Your task to perform on an android device: change alarm snooze length Image 0: 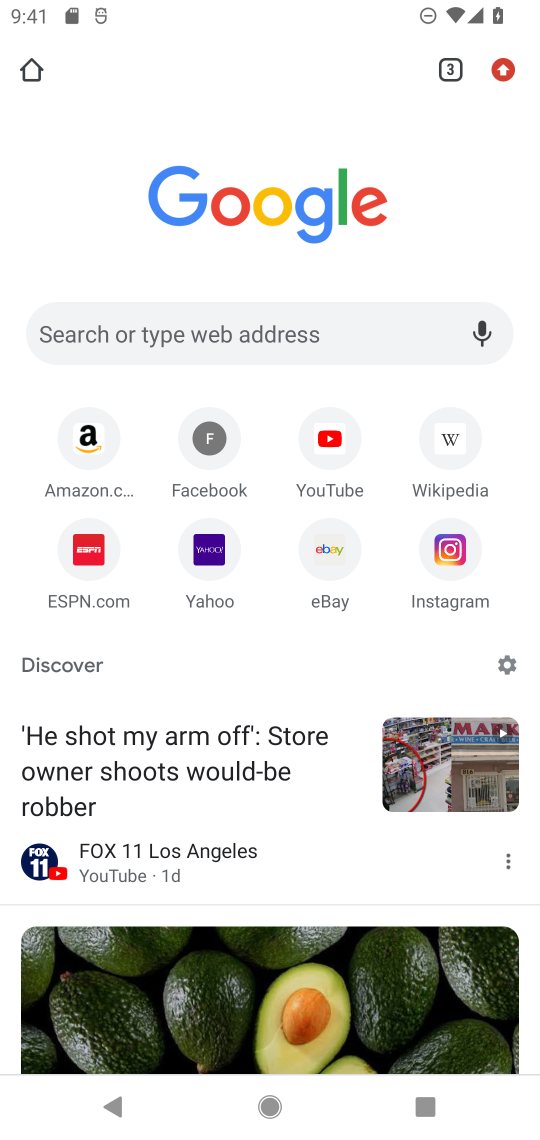
Step 0: press home button
Your task to perform on an android device: change alarm snooze length Image 1: 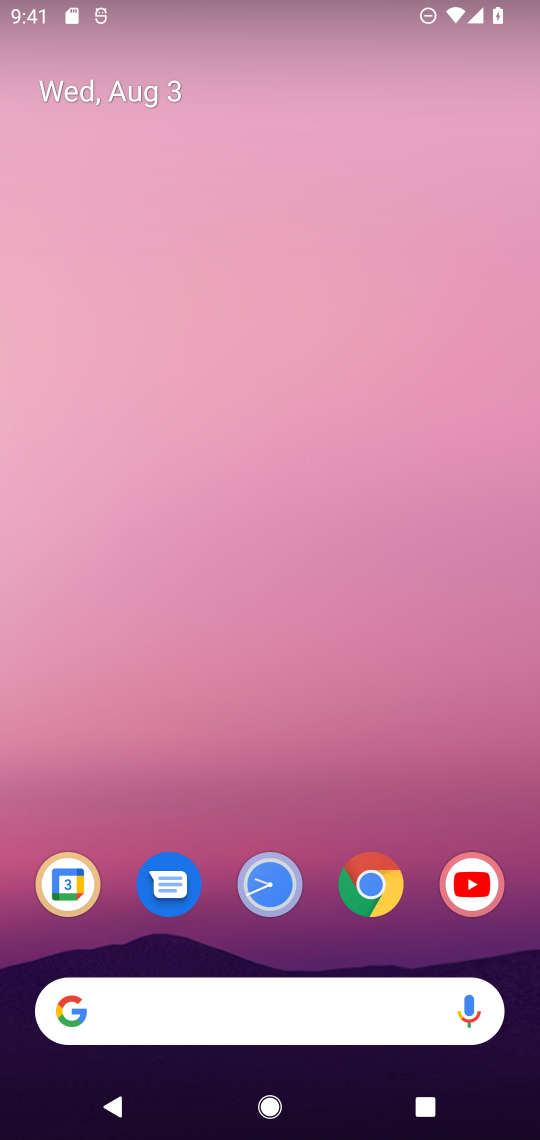
Step 1: click (258, 877)
Your task to perform on an android device: change alarm snooze length Image 2: 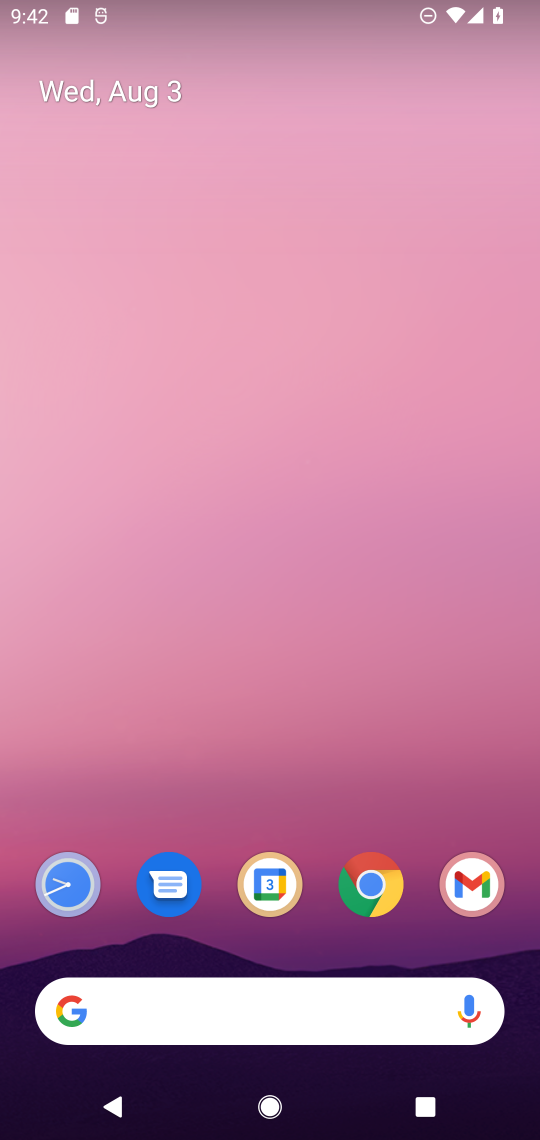
Step 2: click (68, 895)
Your task to perform on an android device: change alarm snooze length Image 3: 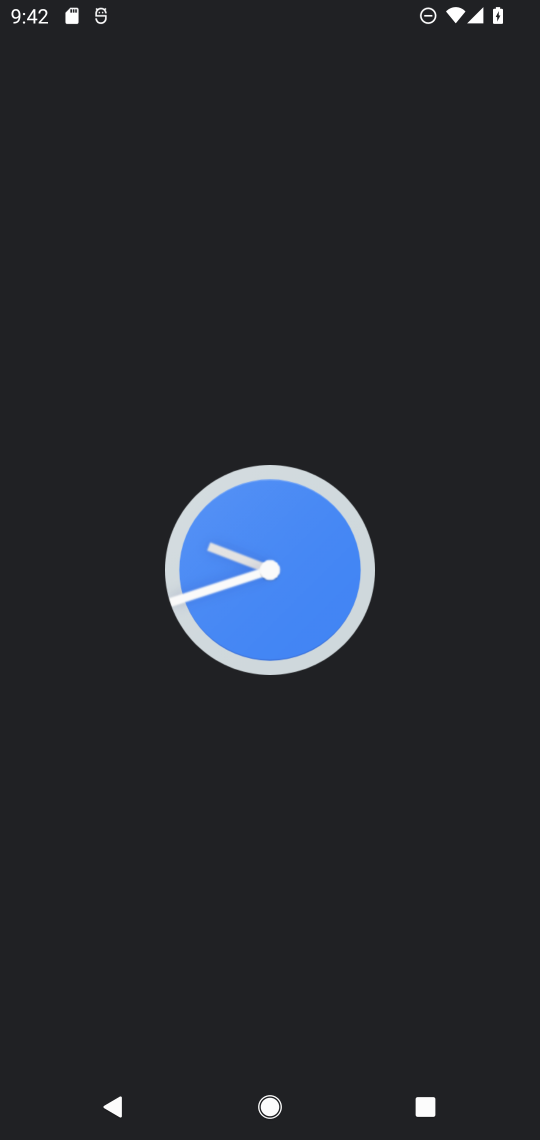
Step 3: click (53, 875)
Your task to perform on an android device: change alarm snooze length Image 4: 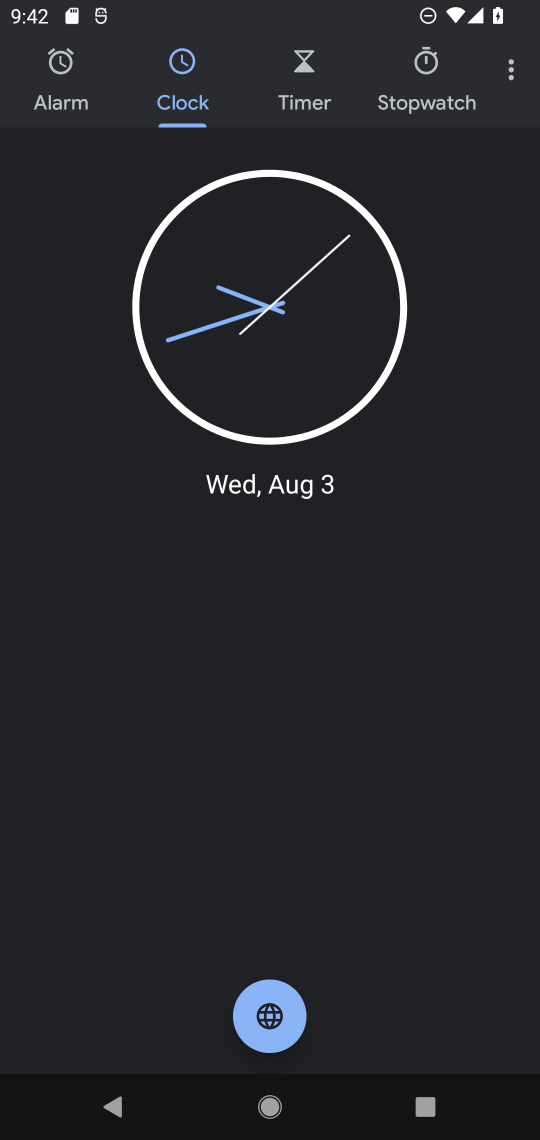
Step 4: click (63, 80)
Your task to perform on an android device: change alarm snooze length Image 5: 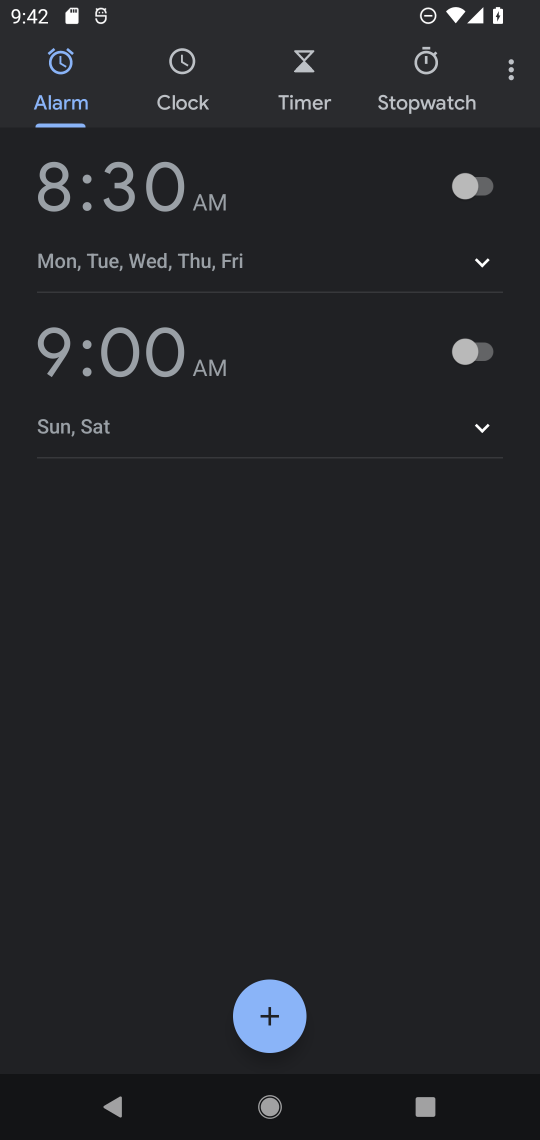
Step 5: click (512, 68)
Your task to perform on an android device: change alarm snooze length Image 6: 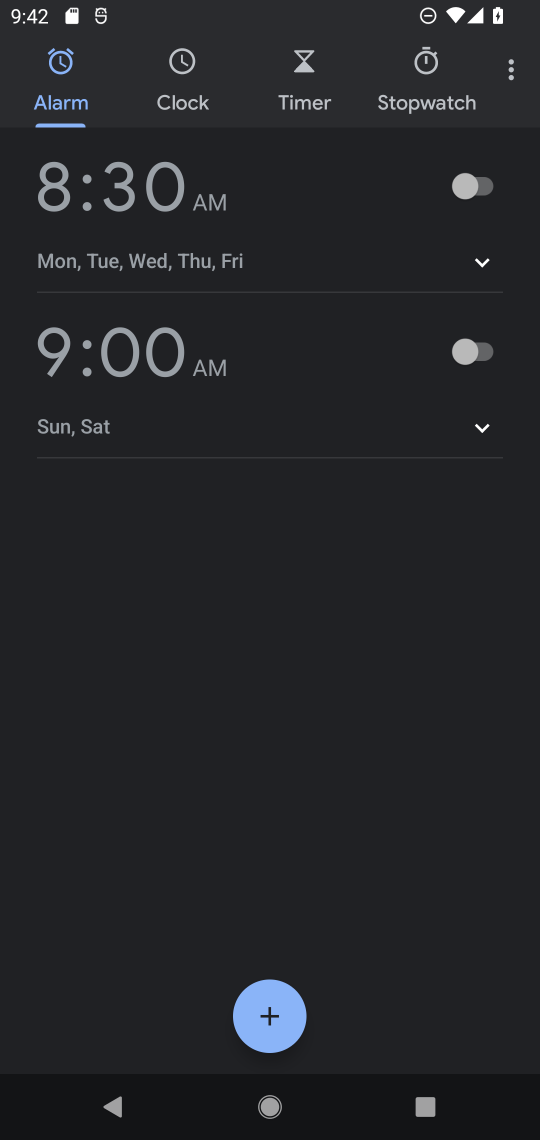
Step 6: click (509, 69)
Your task to perform on an android device: change alarm snooze length Image 7: 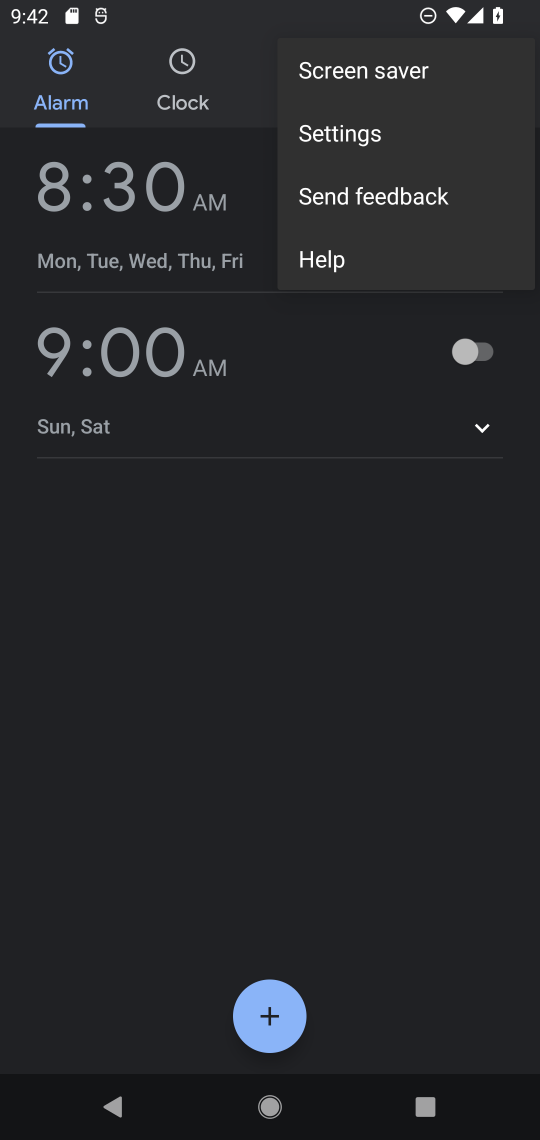
Step 7: click (340, 142)
Your task to perform on an android device: change alarm snooze length Image 8: 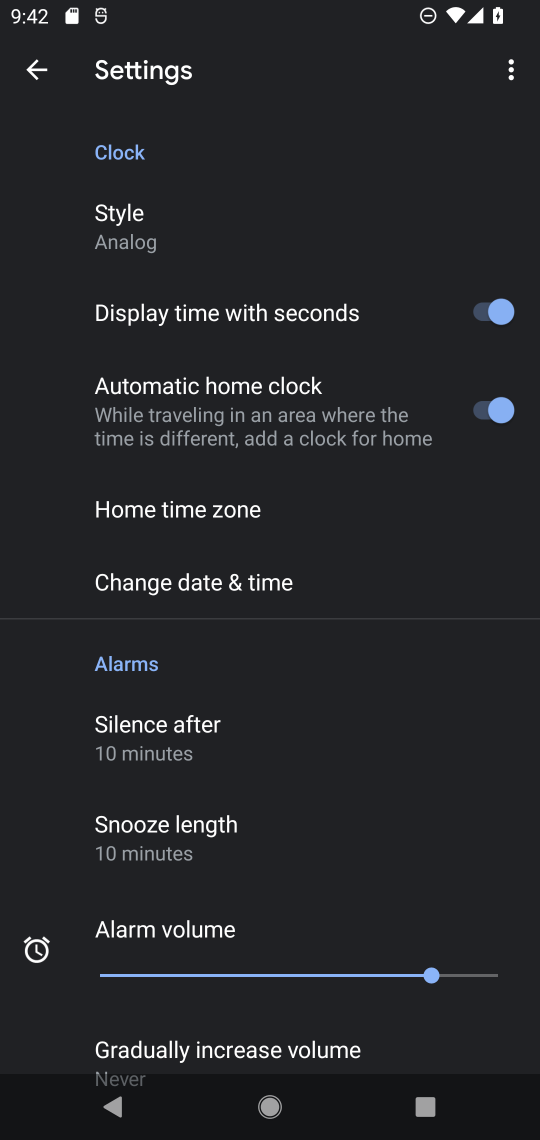
Step 8: click (151, 852)
Your task to perform on an android device: change alarm snooze length Image 9: 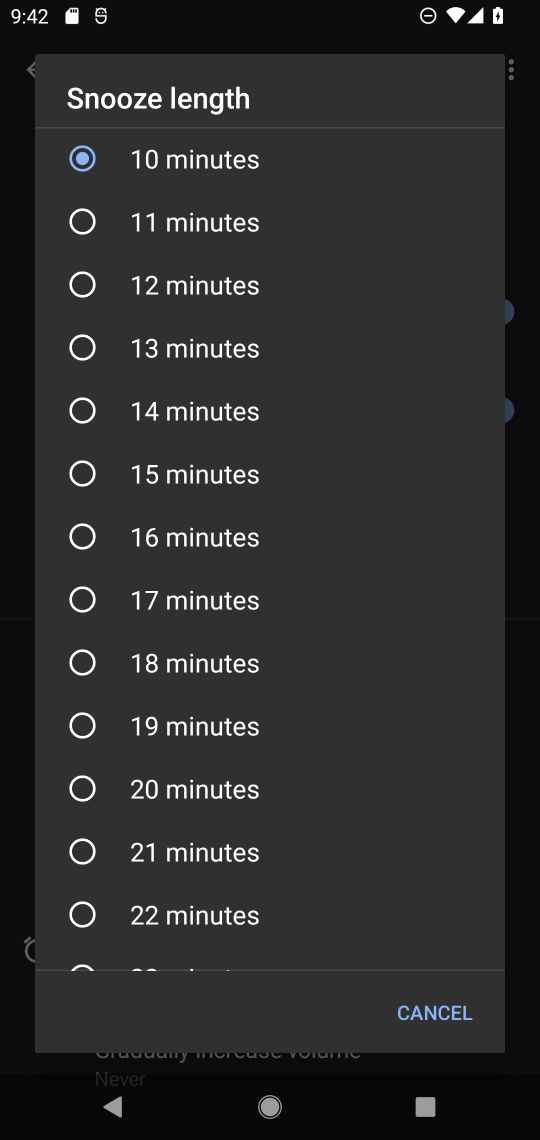
Step 9: click (68, 285)
Your task to perform on an android device: change alarm snooze length Image 10: 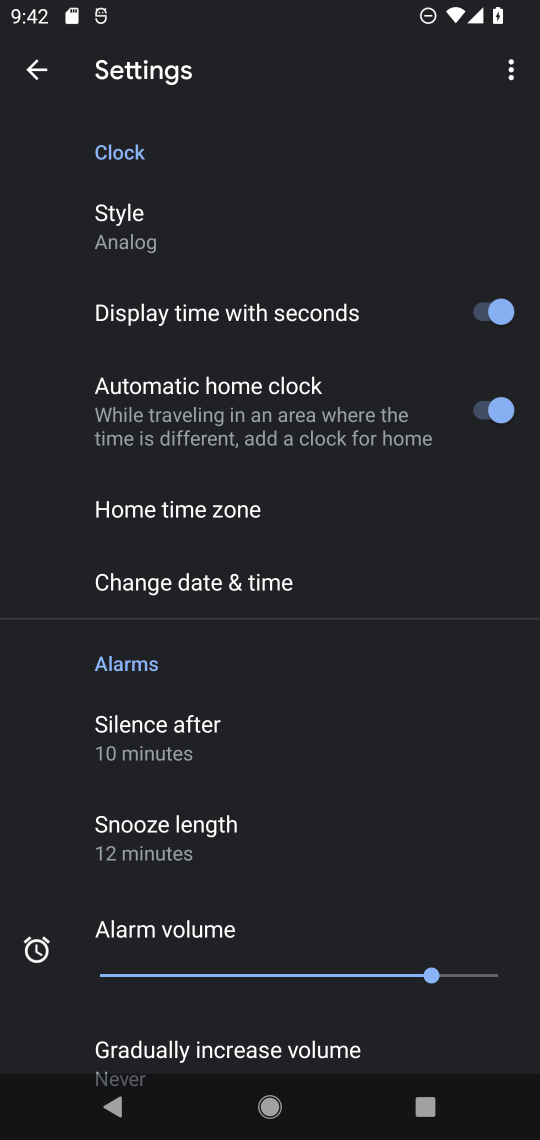
Step 10: task complete